Your task to perform on an android device: Open calendar and show me the second week of next month Image 0: 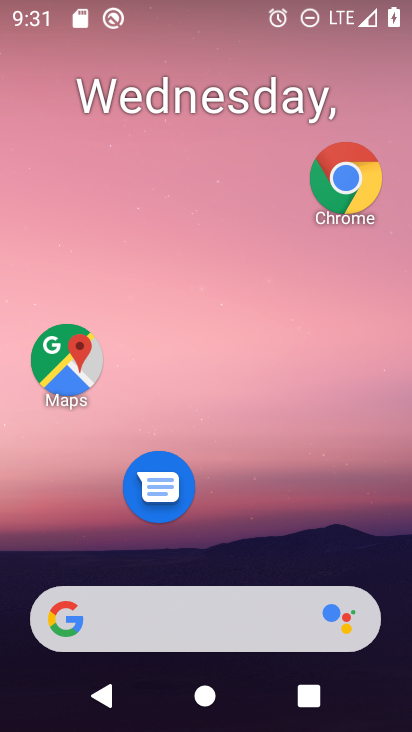
Step 0: drag from (257, 609) to (238, 48)
Your task to perform on an android device: Open calendar and show me the second week of next month Image 1: 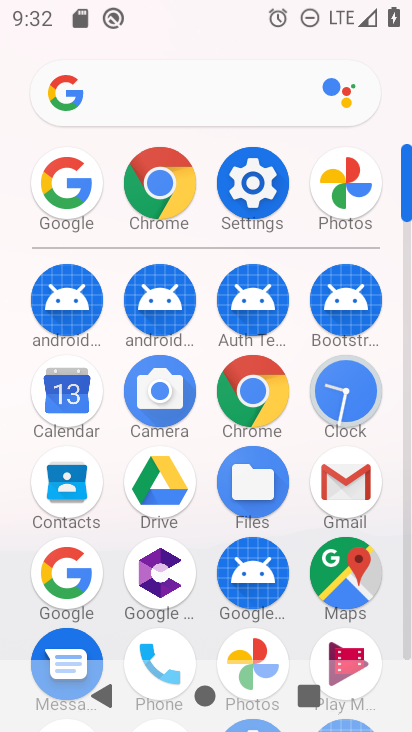
Step 1: click (62, 406)
Your task to perform on an android device: Open calendar and show me the second week of next month Image 2: 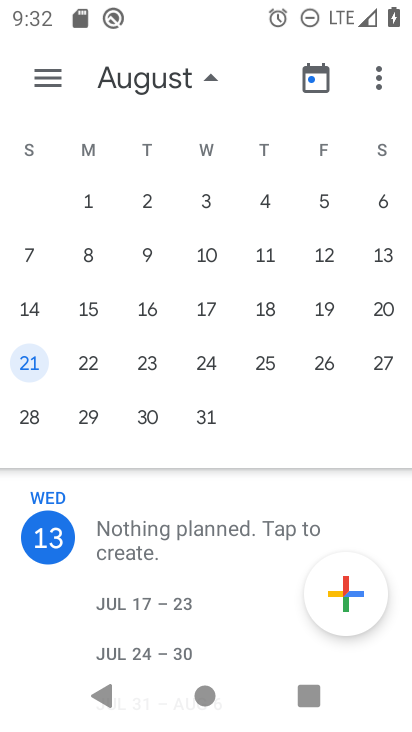
Step 2: click (23, 264)
Your task to perform on an android device: Open calendar and show me the second week of next month Image 3: 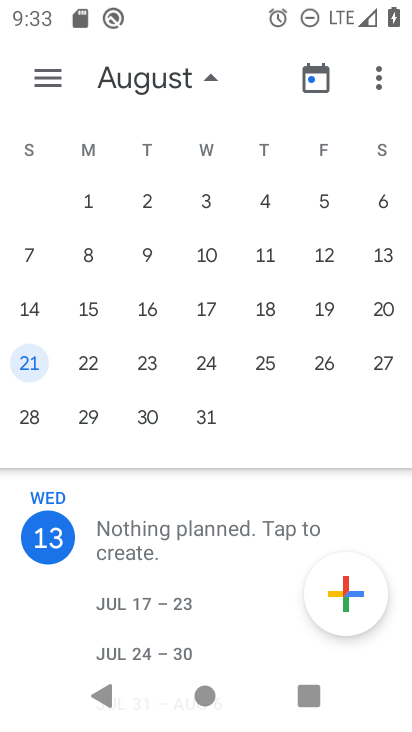
Step 3: click (35, 252)
Your task to perform on an android device: Open calendar and show me the second week of next month Image 4: 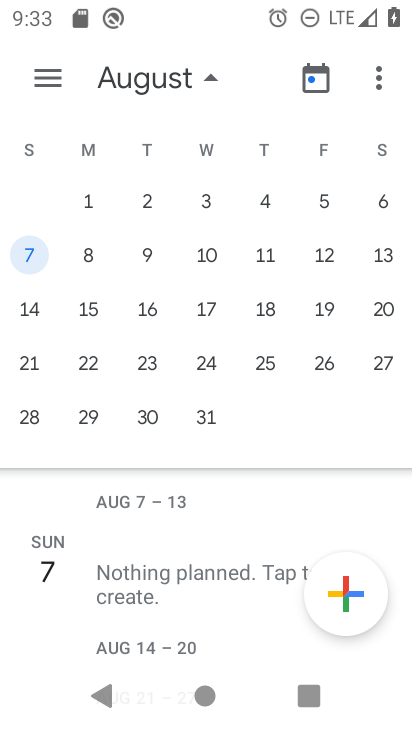
Step 4: task complete